Your task to perform on an android device: Do I have any events tomorrow? Image 0: 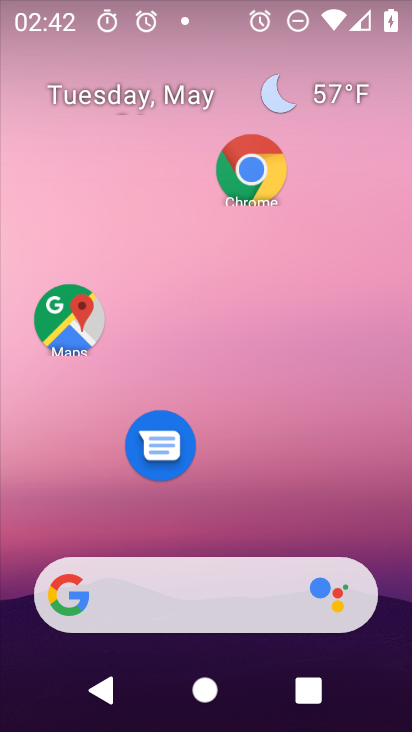
Step 0: drag from (242, 709) to (236, 251)
Your task to perform on an android device: Do I have any events tomorrow? Image 1: 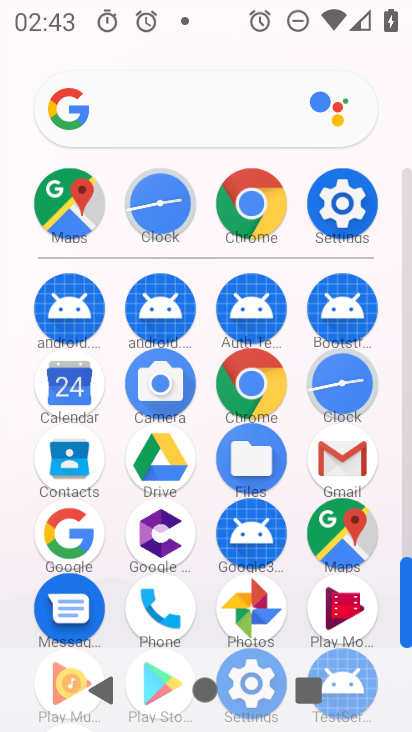
Step 1: click (64, 389)
Your task to perform on an android device: Do I have any events tomorrow? Image 2: 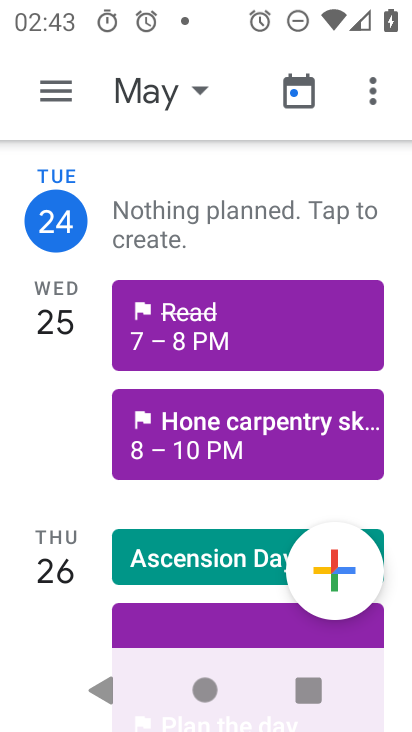
Step 2: click (178, 83)
Your task to perform on an android device: Do I have any events tomorrow? Image 3: 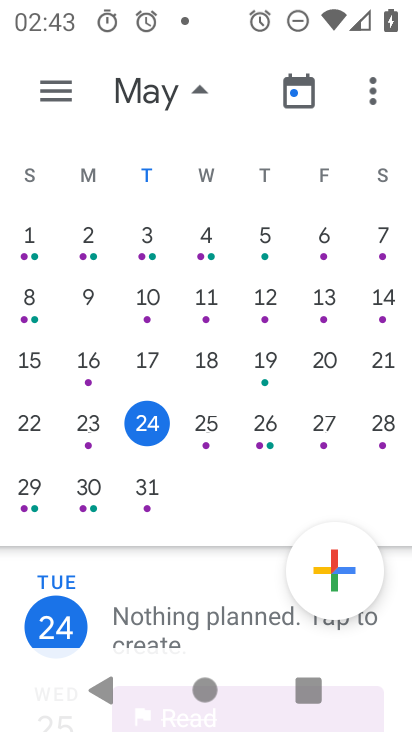
Step 3: click (219, 415)
Your task to perform on an android device: Do I have any events tomorrow? Image 4: 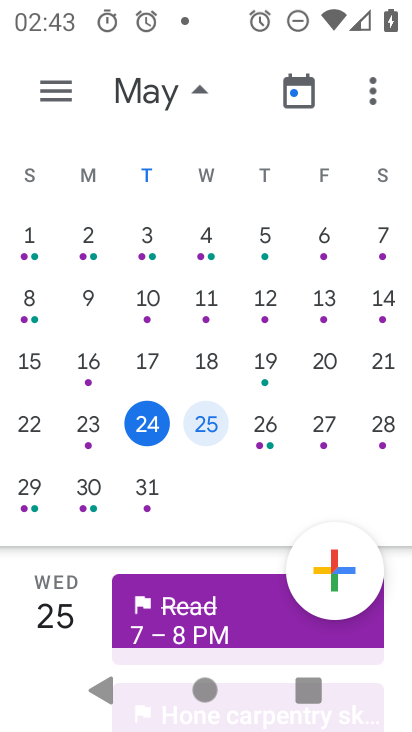
Step 4: click (196, 86)
Your task to perform on an android device: Do I have any events tomorrow? Image 5: 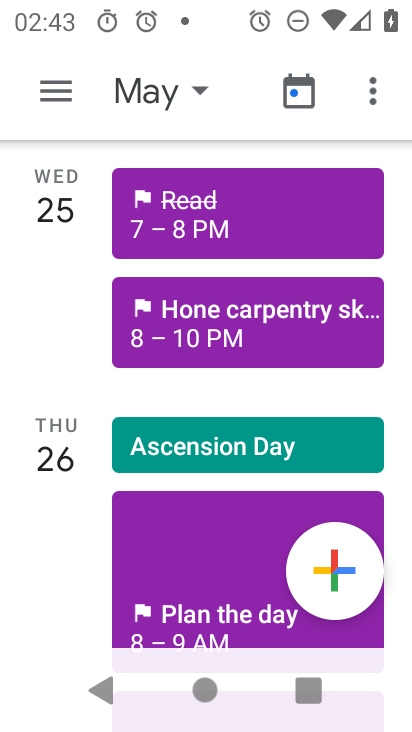
Step 5: task complete